Your task to perform on an android device: Search for sony triple a on target, select the first entry, and add it to the cart. Image 0: 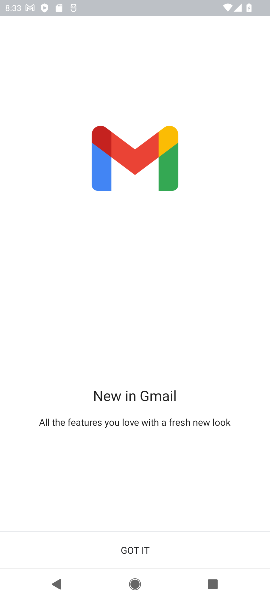
Step 0: press home button
Your task to perform on an android device: Search for sony triple a on target, select the first entry, and add it to the cart. Image 1: 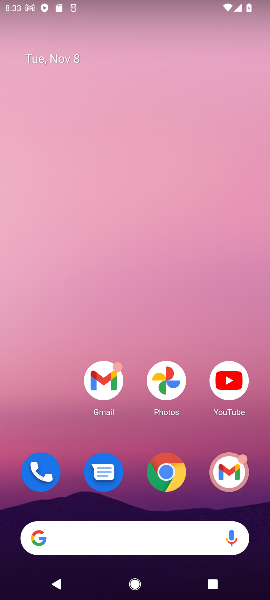
Step 1: click (165, 475)
Your task to perform on an android device: Search for sony triple a on target, select the first entry, and add it to the cart. Image 2: 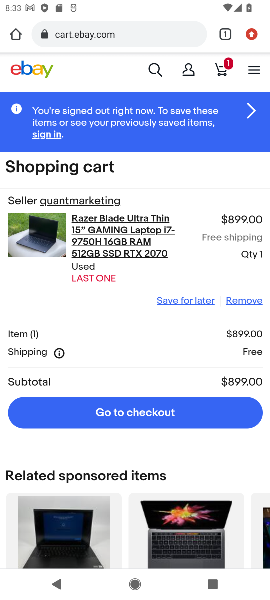
Step 2: click (161, 34)
Your task to perform on an android device: Search for sony triple a on target, select the first entry, and add it to the cart. Image 3: 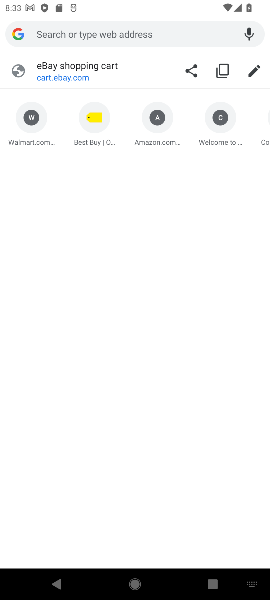
Step 3: type "target"
Your task to perform on an android device: Search for sony triple a on target, select the first entry, and add it to the cart. Image 4: 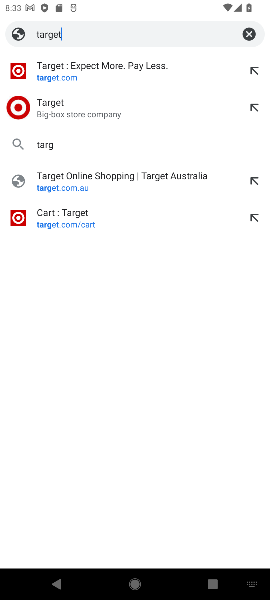
Step 4: press enter
Your task to perform on an android device: Search for sony triple a on target, select the first entry, and add it to the cart. Image 5: 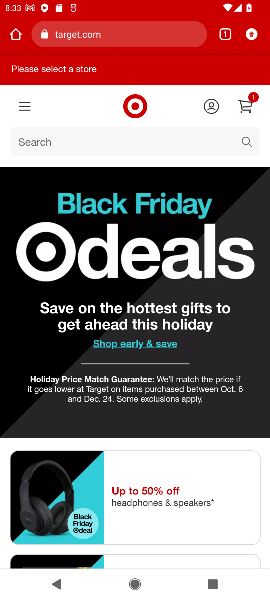
Step 5: click (77, 143)
Your task to perform on an android device: Search for sony triple a on target, select the first entry, and add it to the cart. Image 6: 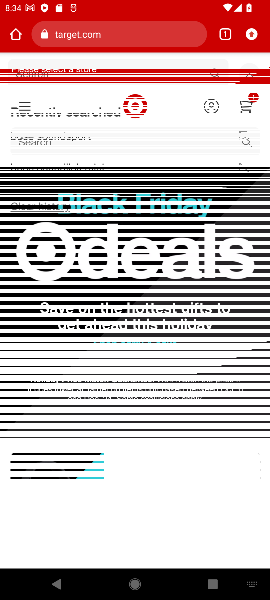
Step 6: type "sony triple a"
Your task to perform on an android device: Search for sony triple a on target, select the first entry, and add it to the cart. Image 7: 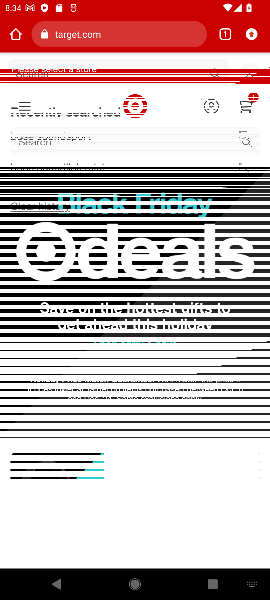
Step 7: press enter
Your task to perform on an android device: Search for sony triple a on target, select the first entry, and add it to the cart. Image 8: 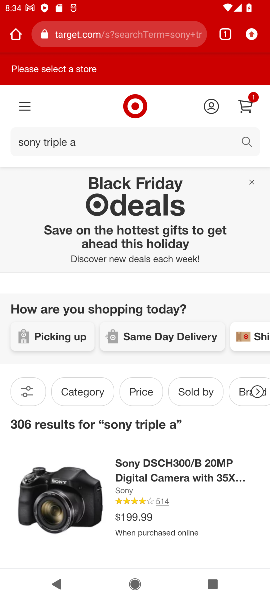
Step 8: task complete